Your task to perform on an android device: visit the assistant section in the google photos Image 0: 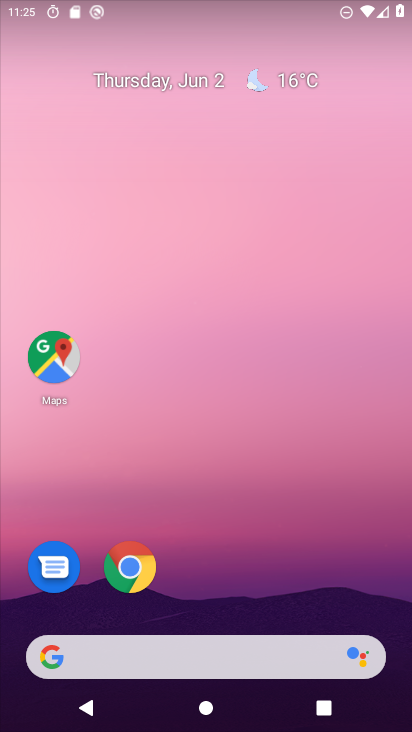
Step 0: drag from (161, 707) to (157, 72)
Your task to perform on an android device: visit the assistant section in the google photos Image 1: 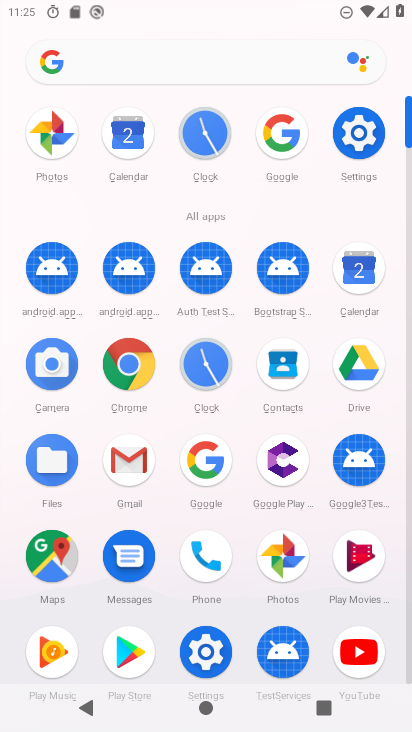
Step 1: click (68, 140)
Your task to perform on an android device: visit the assistant section in the google photos Image 2: 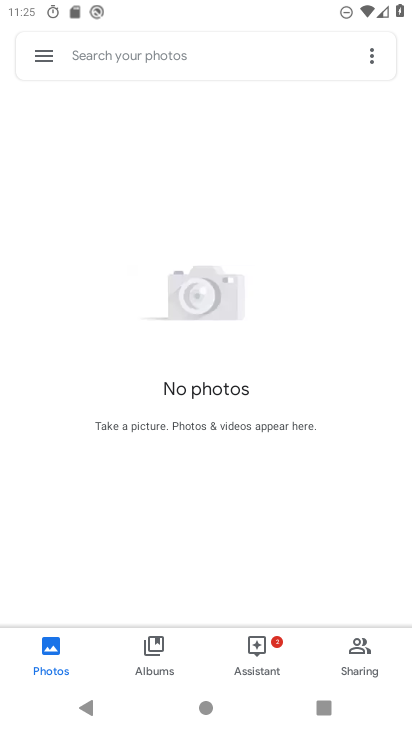
Step 2: click (261, 652)
Your task to perform on an android device: visit the assistant section in the google photos Image 3: 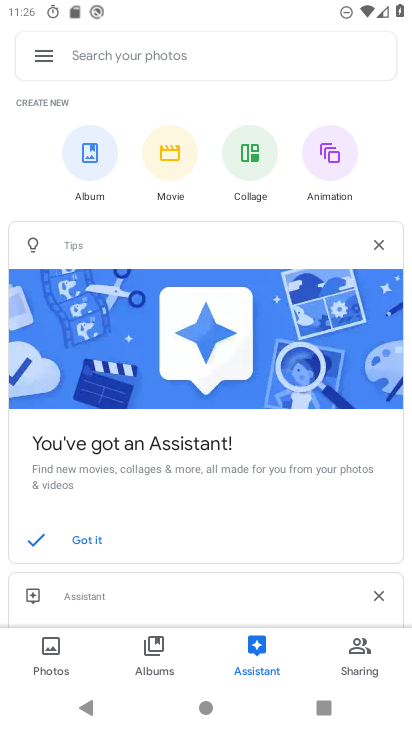
Step 3: task complete